Your task to perform on an android device: check the backup settings in the google photos Image 0: 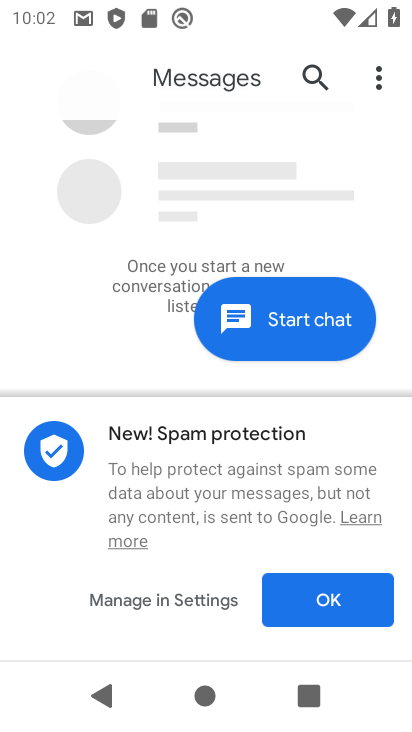
Step 0: press home button
Your task to perform on an android device: check the backup settings in the google photos Image 1: 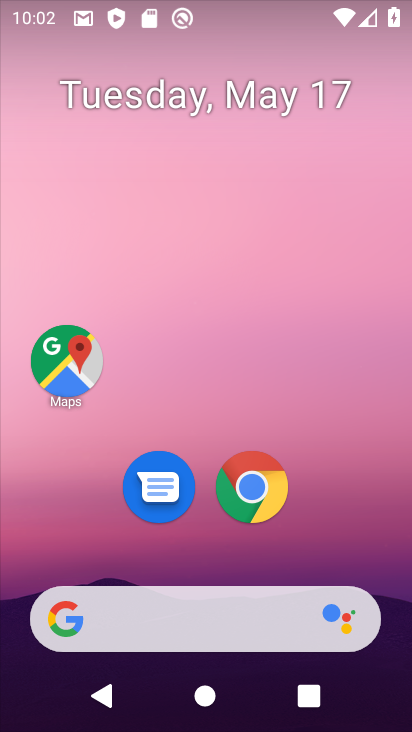
Step 1: drag from (230, 722) to (238, 124)
Your task to perform on an android device: check the backup settings in the google photos Image 2: 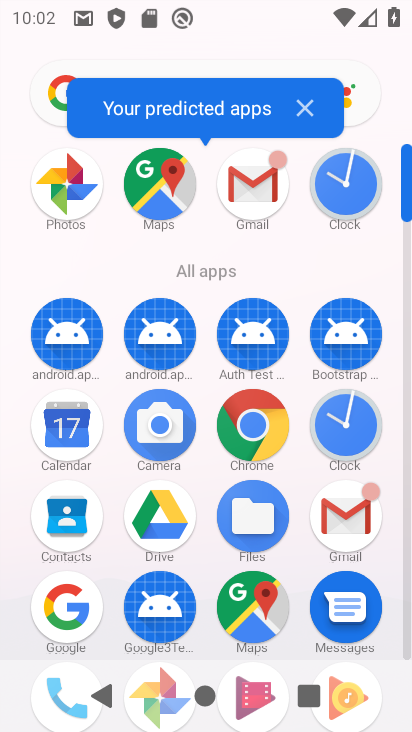
Step 2: click (71, 191)
Your task to perform on an android device: check the backup settings in the google photos Image 3: 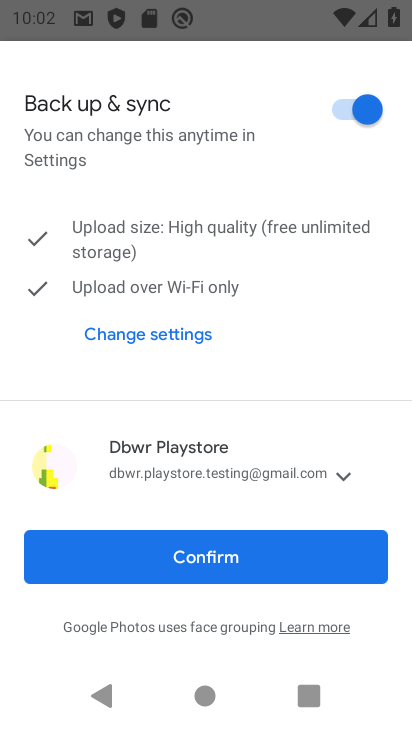
Step 3: click (205, 557)
Your task to perform on an android device: check the backup settings in the google photos Image 4: 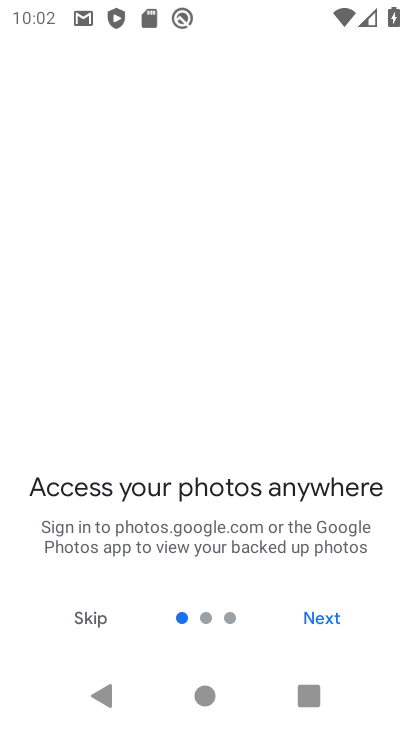
Step 4: click (334, 618)
Your task to perform on an android device: check the backup settings in the google photos Image 5: 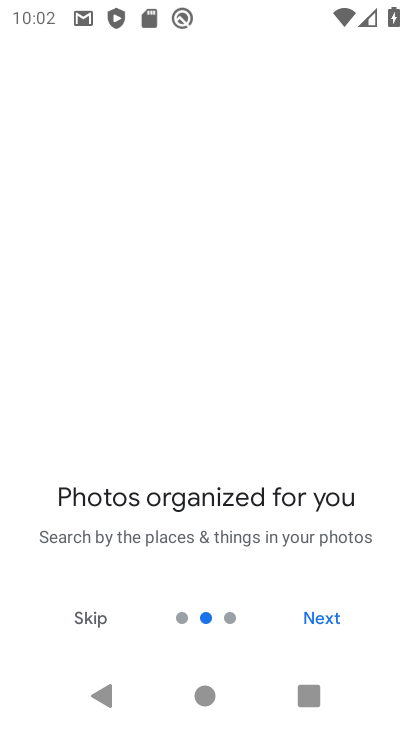
Step 5: click (334, 618)
Your task to perform on an android device: check the backup settings in the google photos Image 6: 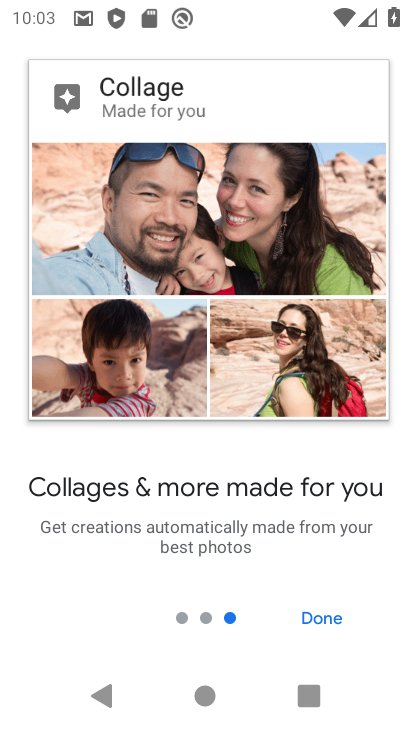
Step 6: click (322, 616)
Your task to perform on an android device: check the backup settings in the google photos Image 7: 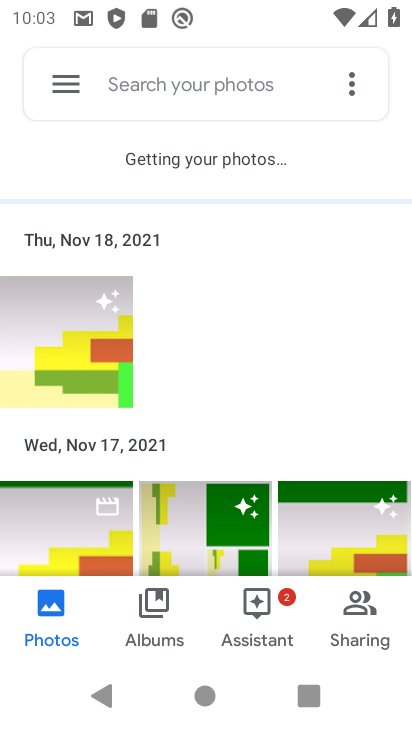
Step 7: click (66, 82)
Your task to perform on an android device: check the backup settings in the google photos Image 8: 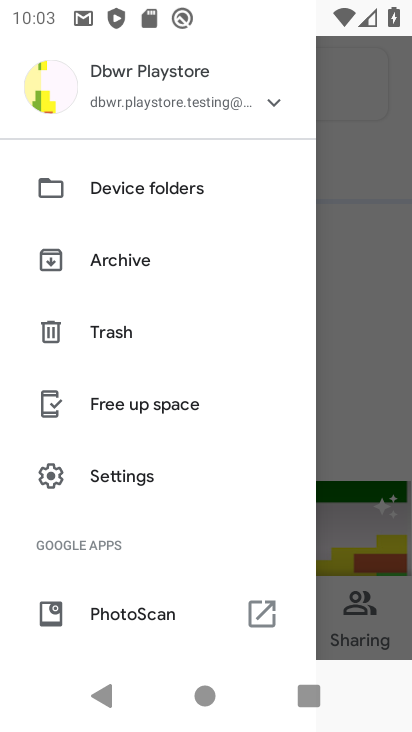
Step 8: click (125, 472)
Your task to perform on an android device: check the backup settings in the google photos Image 9: 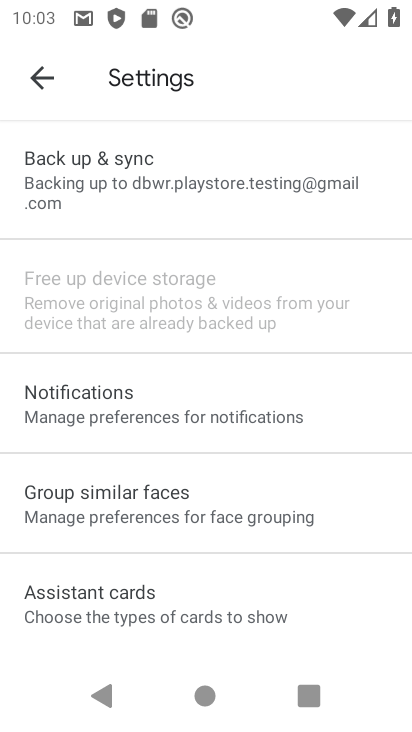
Step 9: click (89, 181)
Your task to perform on an android device: check the backup settings in the google photos Image 10: 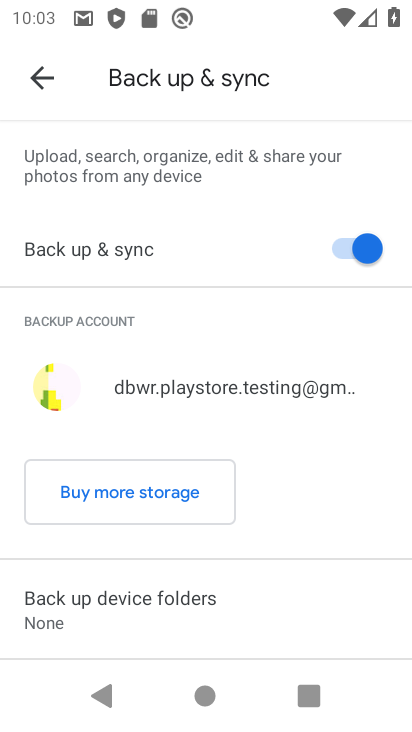
Step 10: task complete